Your task to perform on an android device: Clear the shopping cart on newegg. Add logitech g pro to the cart on newegg, then select checkout. Image 0: 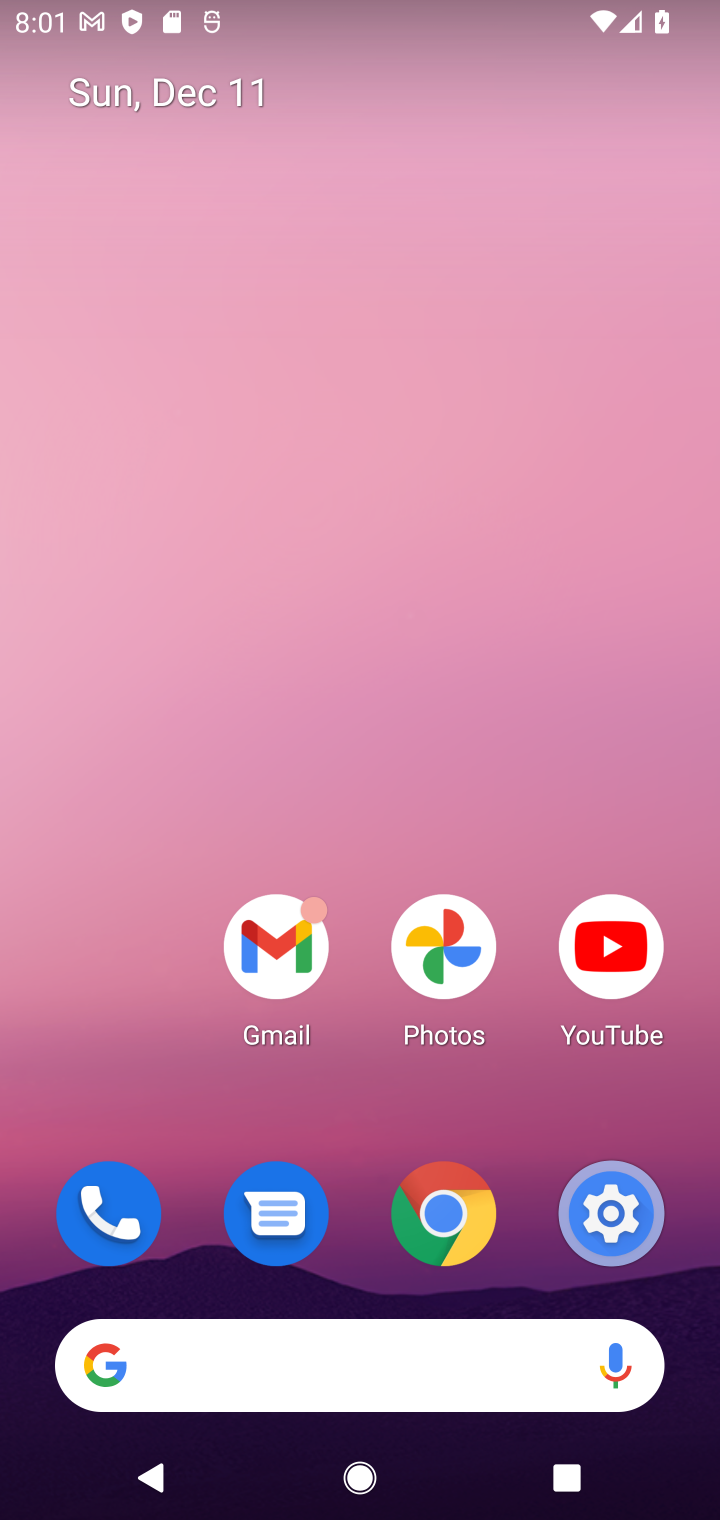
Step 0: click (490, 1342)
Your task to perform on an android device: Clear the shopping cart on newegg. Add logitech g pro to the cart on newegg, then select checkout. Image 1: 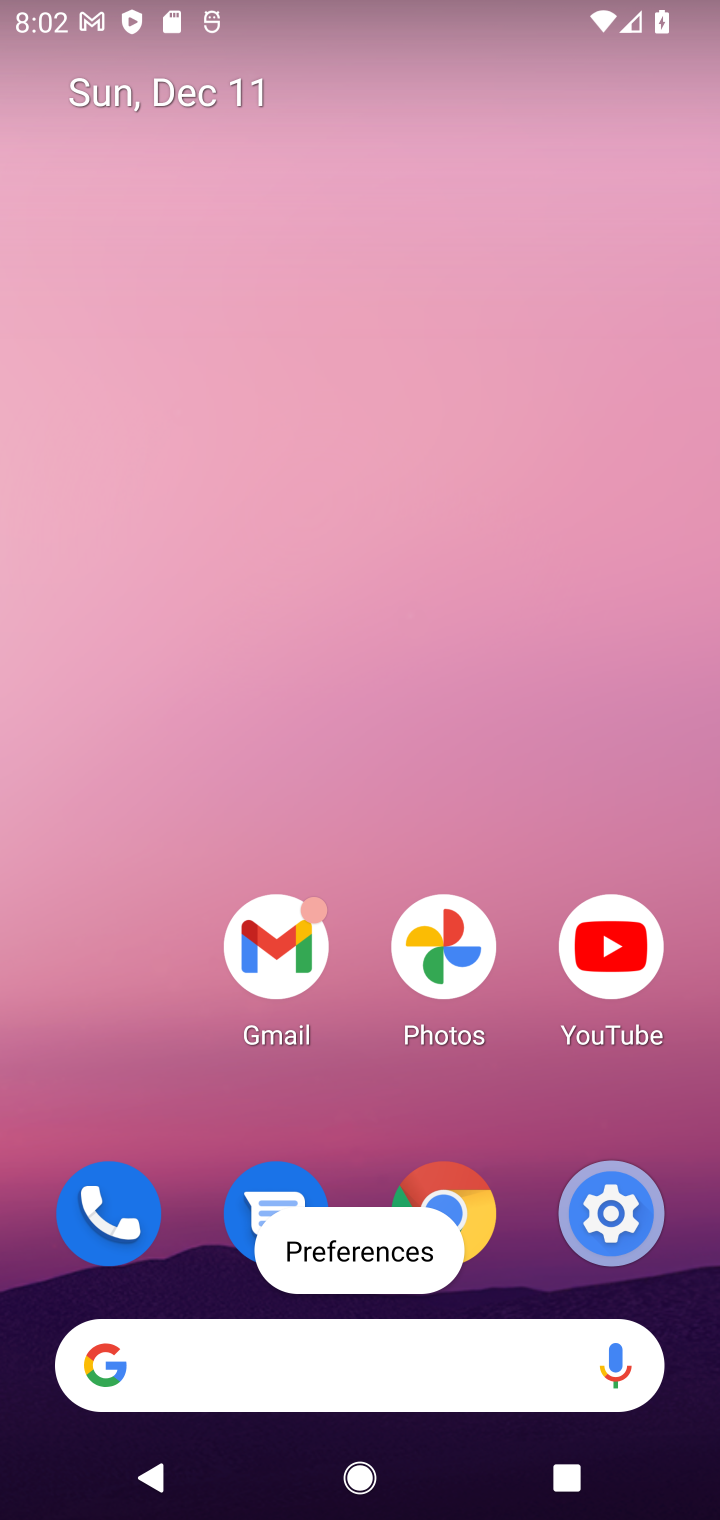
Step 1: click (430, 1364)
Your task to perform on an android device: Clear the shopping cart on newegg. Add logitech g pro to the cart on newegg, then select checkout. Image 2: 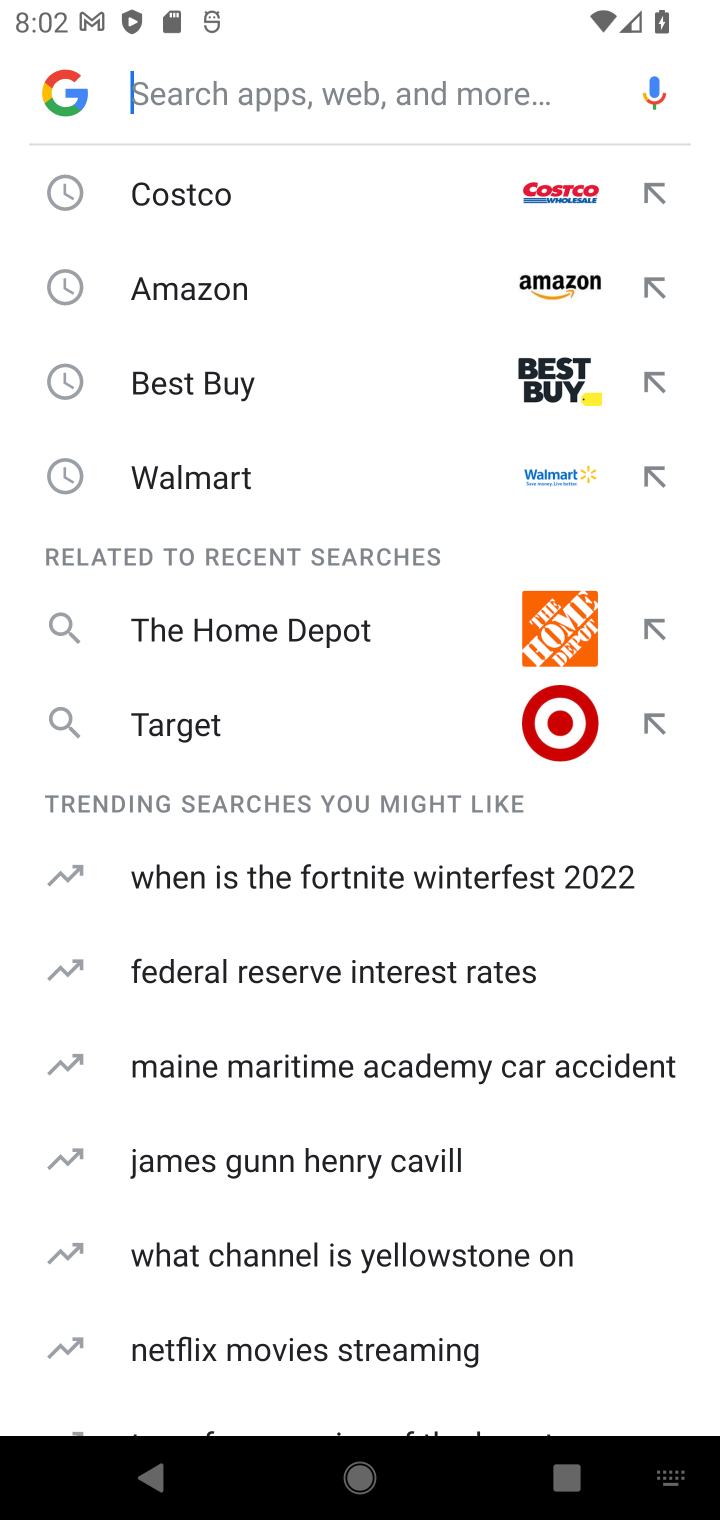
Step 2: type "newegg"
Your task to perform on an android device: Clear the shopping cart on newegg. Add logitech g pro to the cart on newegg, then select checkout. Image 3: 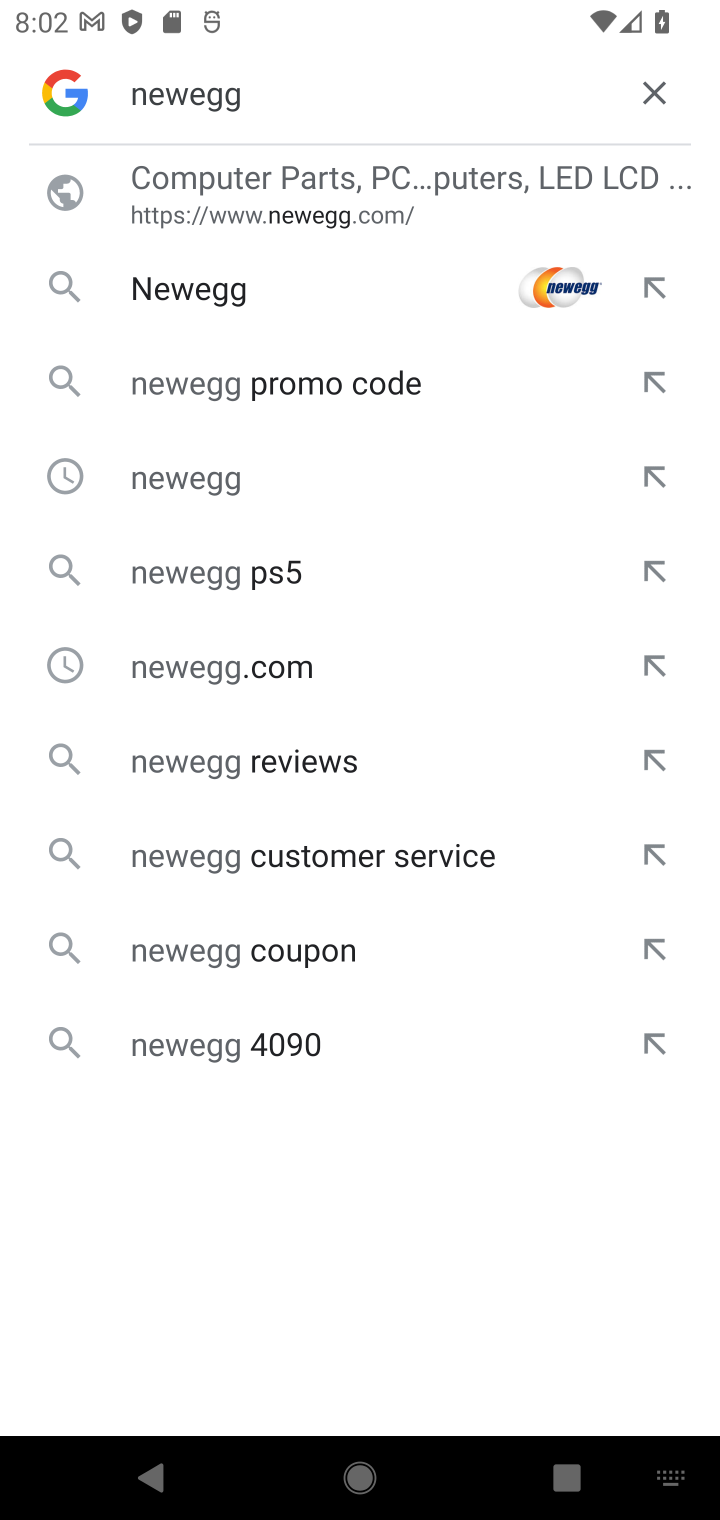
Step 3: click (270, 182)
Your task to perform on an android device: Clear the shopping cart on newegg. Add logitech g pro to the cart on newegg, then select checkout. Image 4: 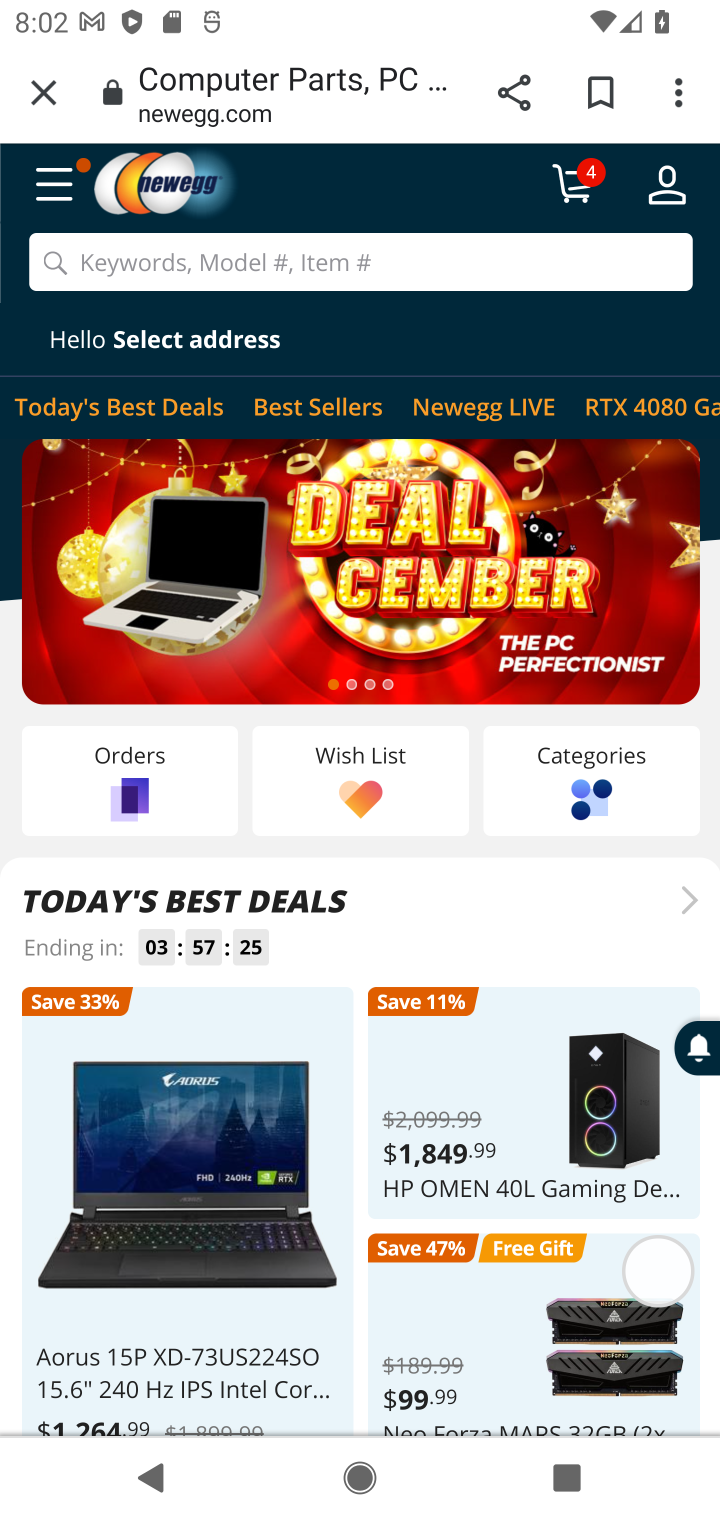
Step 4: click (288, 259)
Your task to perform on an android device: Clear the shopping cart on newegg. Add logitech g pro to the cart on newegg, then select checkout. Image 5: 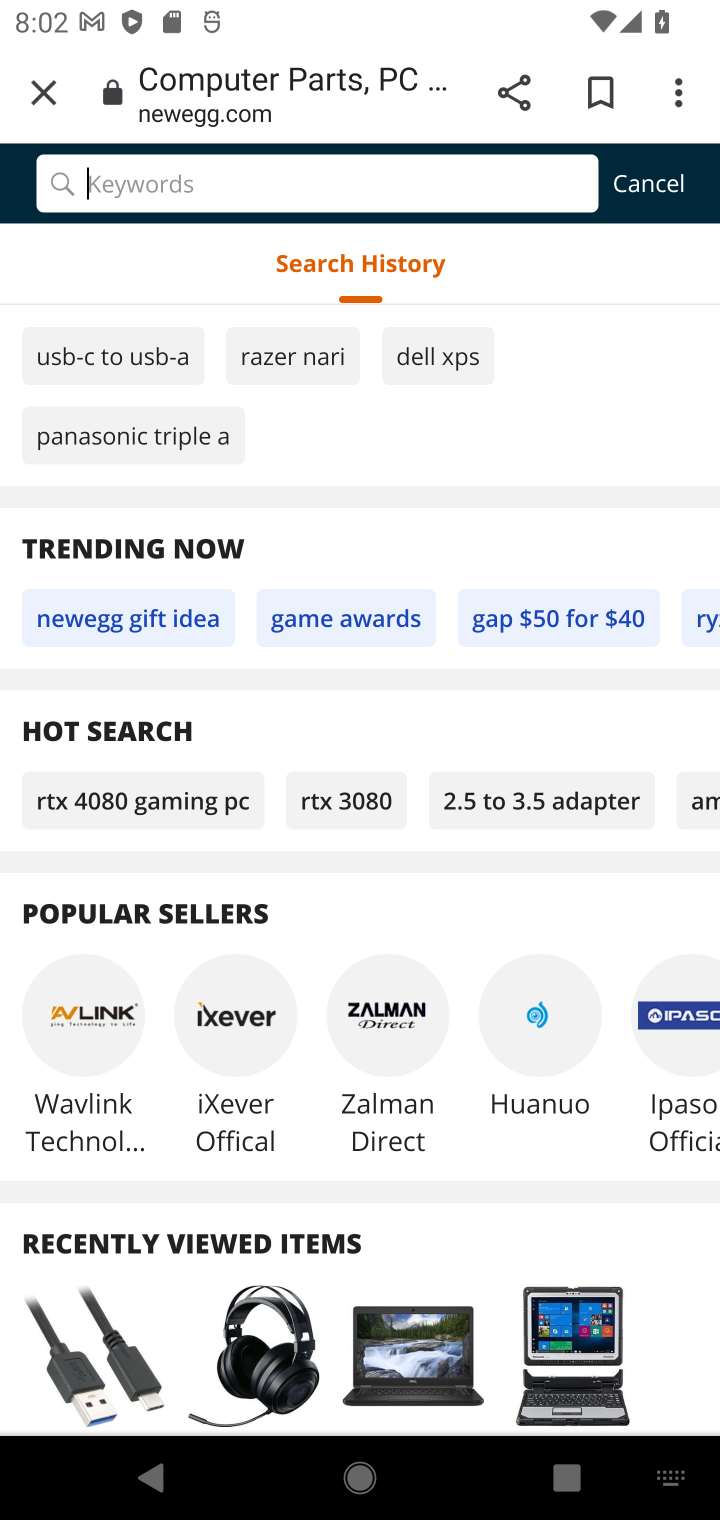
Step 5: type "logitech g pro"
Your task to perform on an android device: Clear the shopping cart on newegg. Add logitech g pro to the cart on newegg, then select checkout. Image 6: 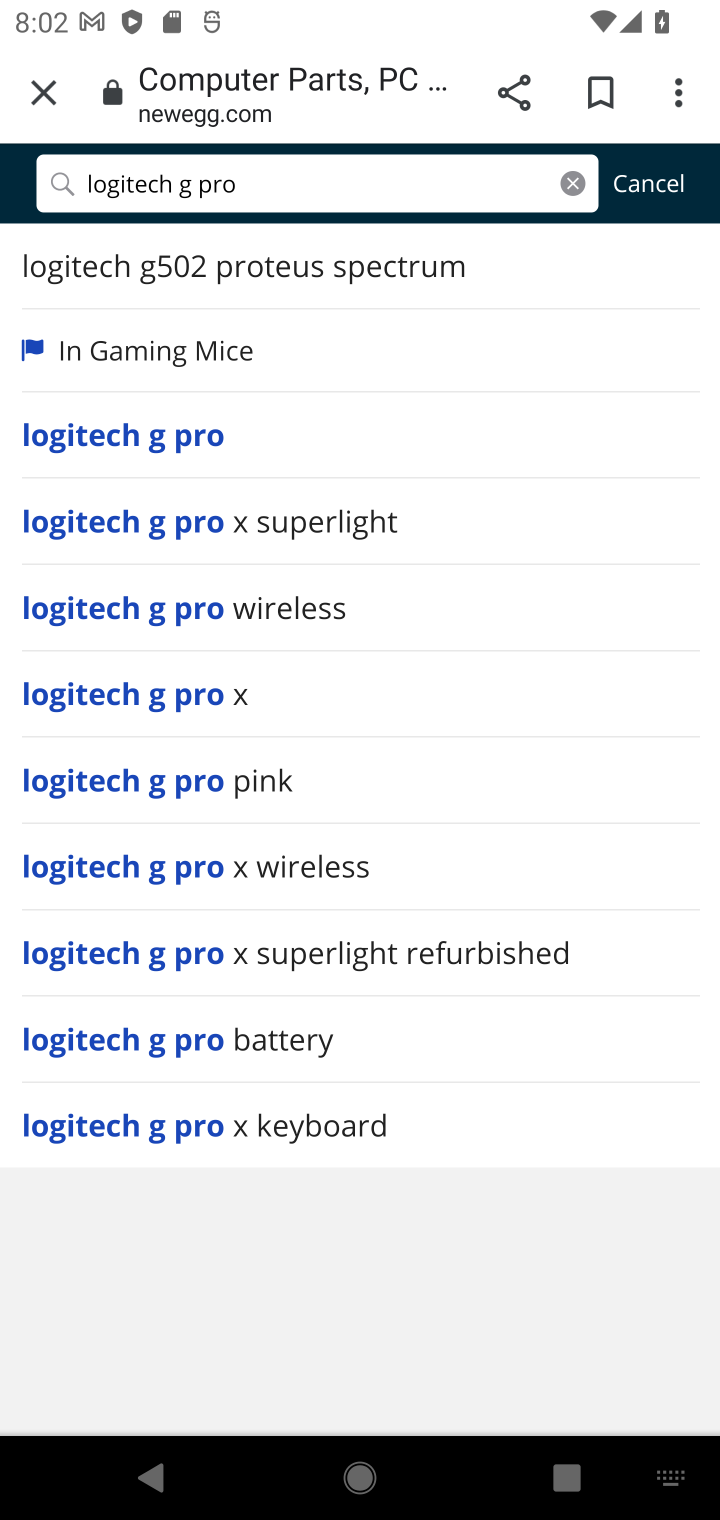
Step 6: click (233, 412)
Your task to perform on an android device: Clear the shopping cart on newegg. Add logitech g pro to the cart on newegg, then select checkout. Image 7: 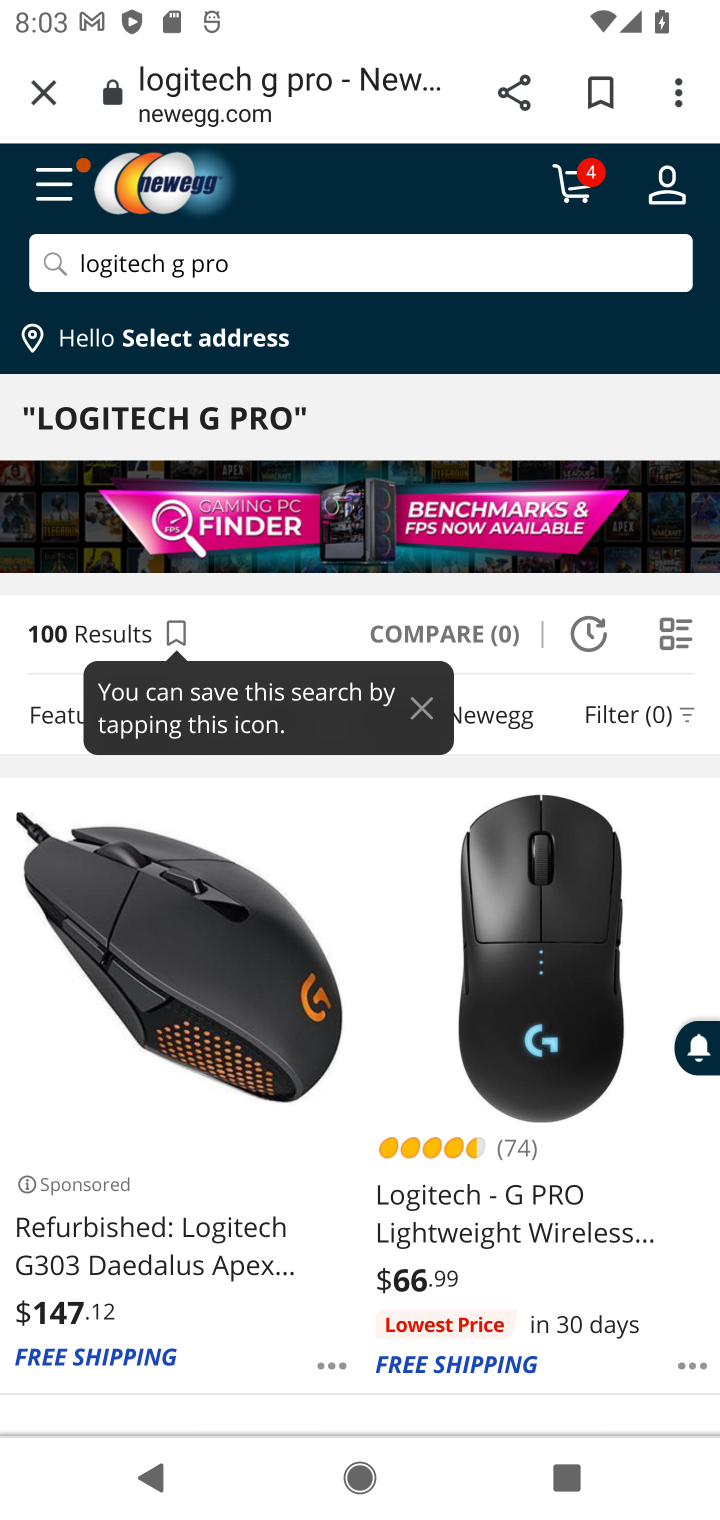
Step 7: task complete